Your task to perform on an android device: Is it going to rain today? Image 0: 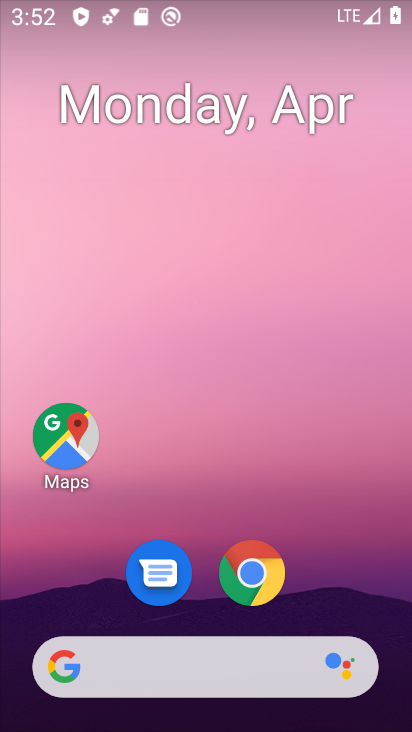
Step 0: click (287, 660)
Your task to perform on an android device: Is it going to rain today? Image 1: 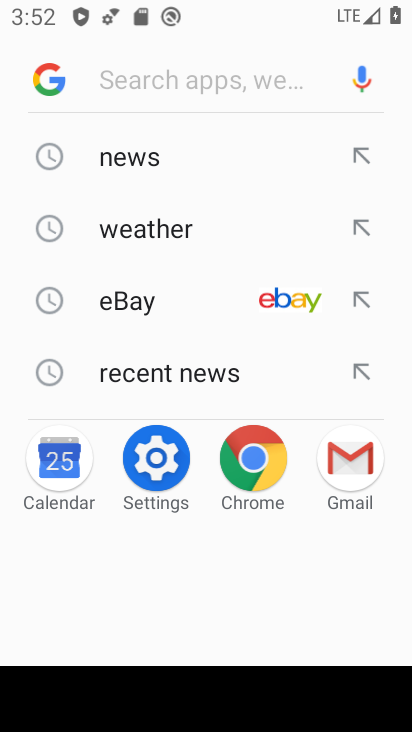
Step 1: click (177, 229)
Your task to perform on an android device: Is it going to rain today? Image 2: 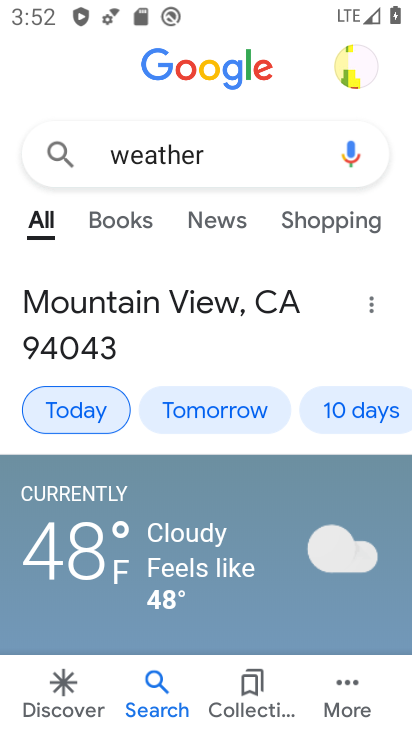
Step 2: task complete